Your task to perform on an android device: Open Google Maps Image 0: 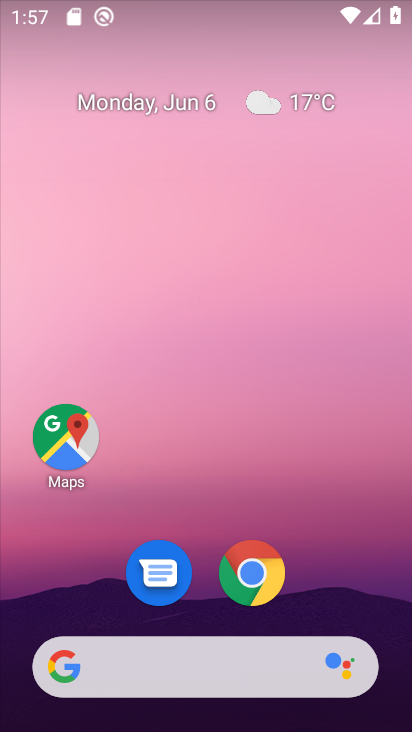
Step 0: drag from (396, 630) to (247, 18)
Your task to perform on an android device: Open Google Maps Image 1: 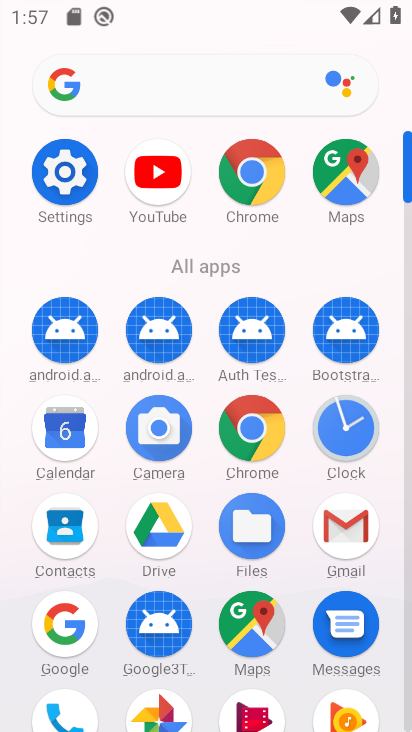
Step 1: click (266, 626)
Your task to perform on an android device: Open Google Maps Image 2: 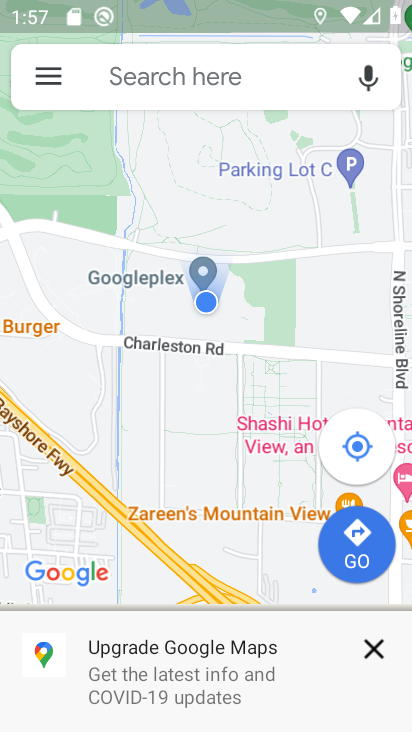
Step 2: task complete